Your task to perform on an android device: Search for pizza restaurants on Maps Image 0: 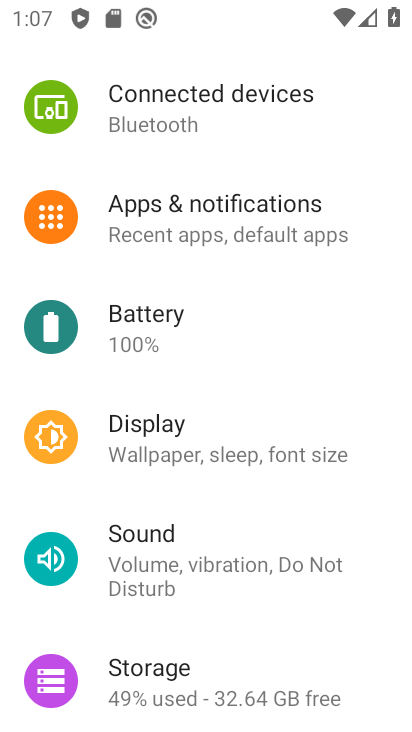
Step 0: press home button
Your task to perform on an android device: Search for pizza restaurants on Maps Image 1: 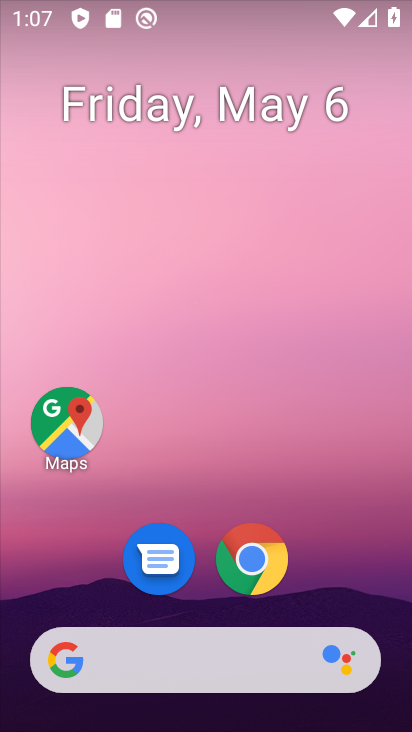
Step 1: click (63, 436)
Your task to perform on an android device: Search for pizza restaurants on Maps Image 2: 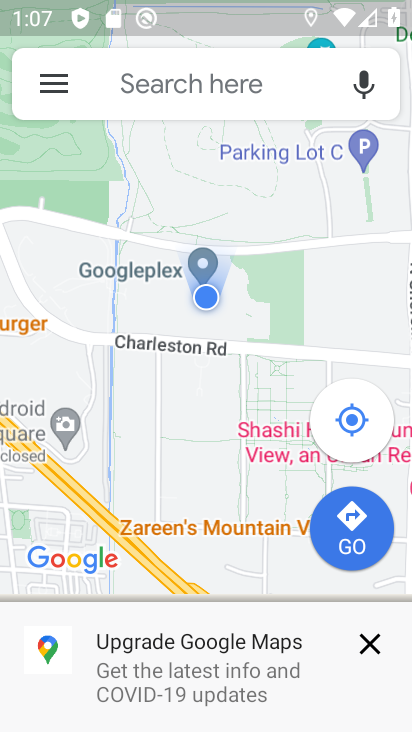
Step 2: click (227, 83)
Your task to perform on an android device: Search for pizza restaurants on Maps Image 3: 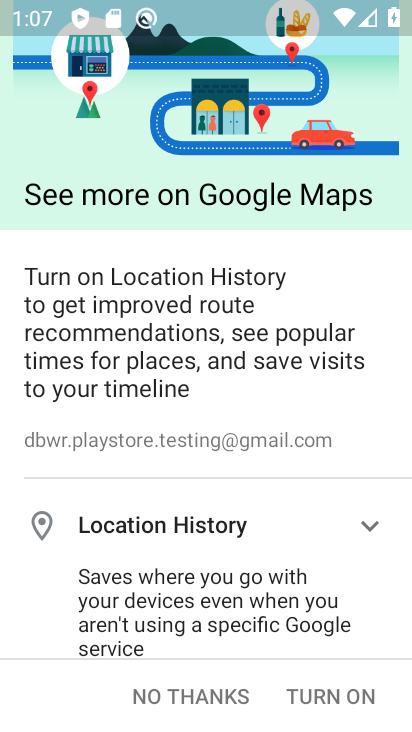
Step 3: click (200, 688)
Your task to perform on an android device: Search for pizza restaurants on Maps Image 4: 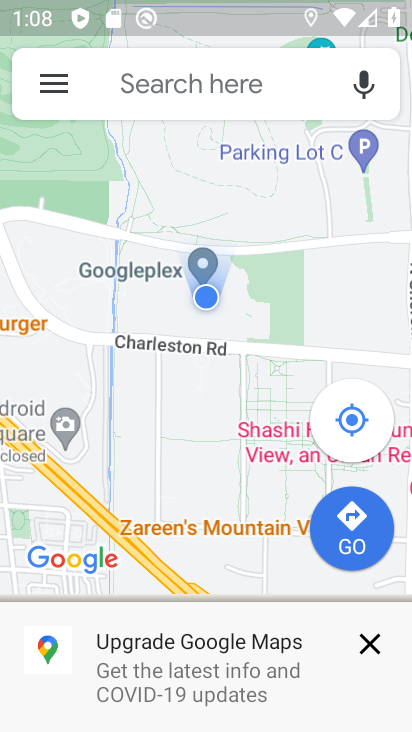
Step 4: click (222, 88)
Your task to perform on an android device: Search for pizza restaurants on Maps Image 5: 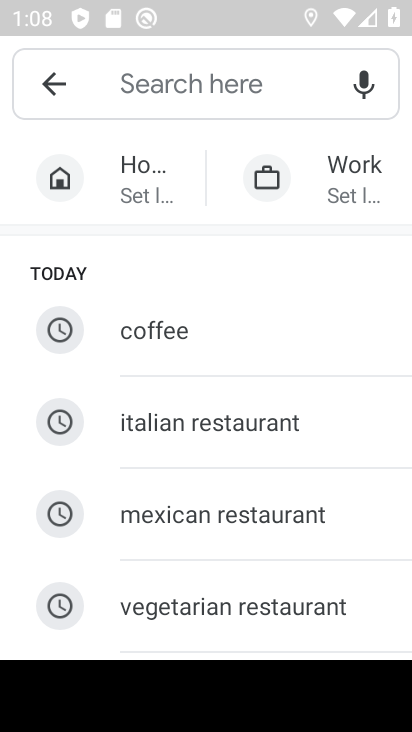
Step 5: drag from (189, 592) to (267, 223)
Your task to perform on an android device: Search for pizza restaurants on Maps Image 6: 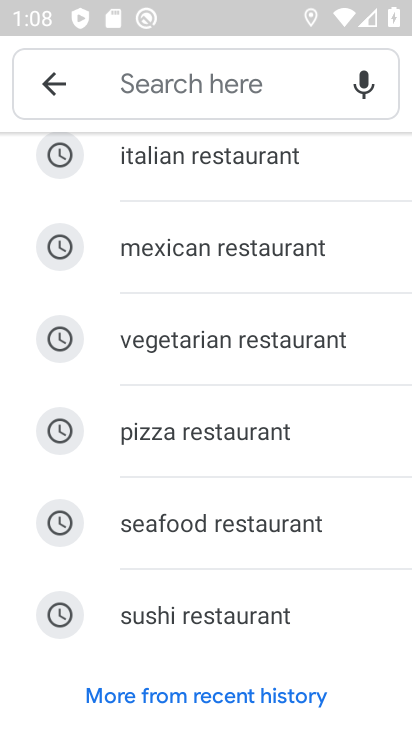
Step 6: click (208, 430)
Your task to perform on an android device: Search for pizza restaurants on Maps Image 7: 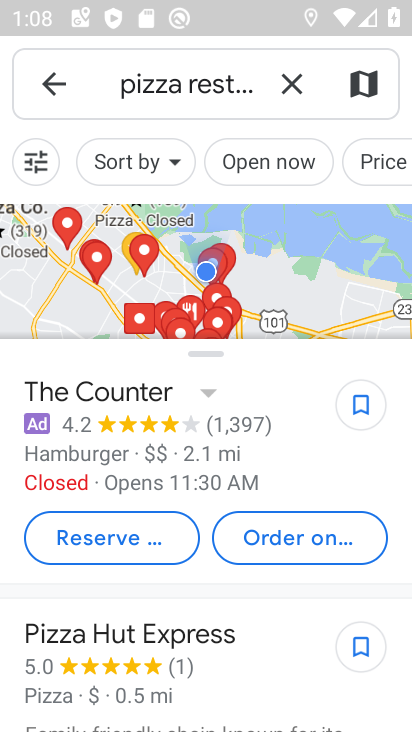
Step 7: task complete